Your task to perform on an android device: toggle airplane mode Image 0: 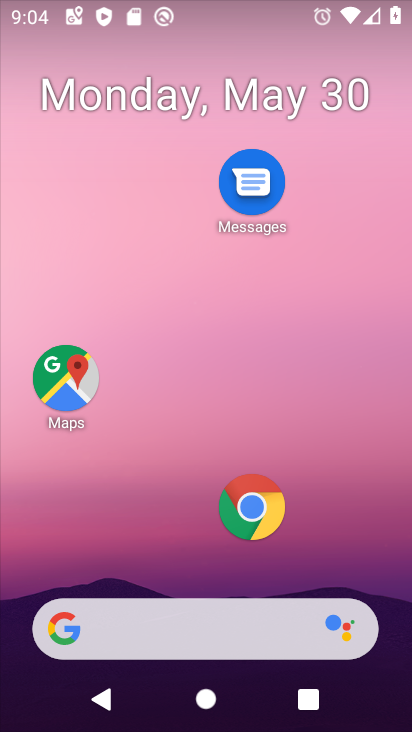
Step 0: drag from (252, 581) to (236, 66)
Your task to perform on an android device: toggle airplane mode Image 1: 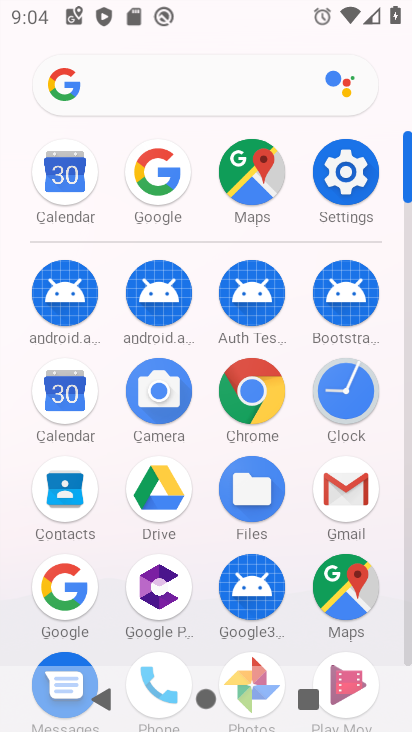
Step 1: click (341, 177)
Your task to perform on an android device: toggle airplane mode Image 2: 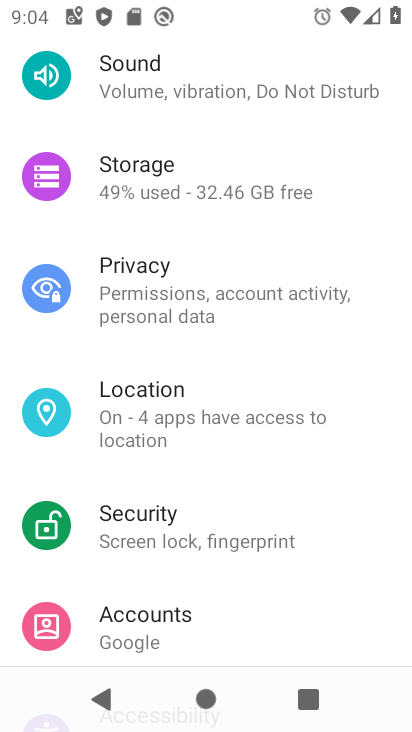
Step 2: drag from (236, 207) to (228, 551)
Your task to perform on an android device: toggle airplane mode Image 3: 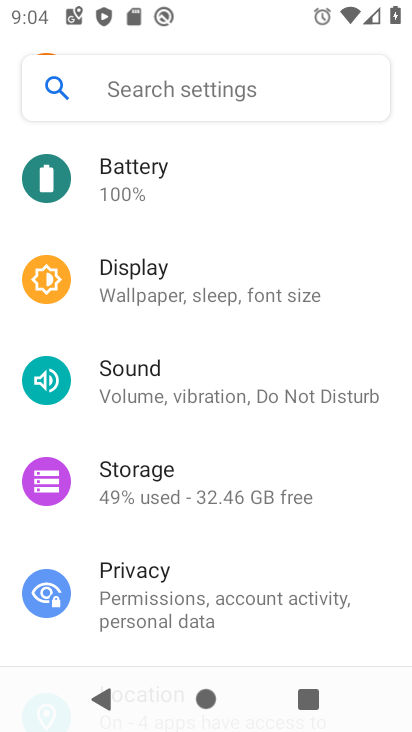
Step 3: drag from (240, 236) to (233, 542)
Your task to perform on an android device: toggle airplane mode Image 4: 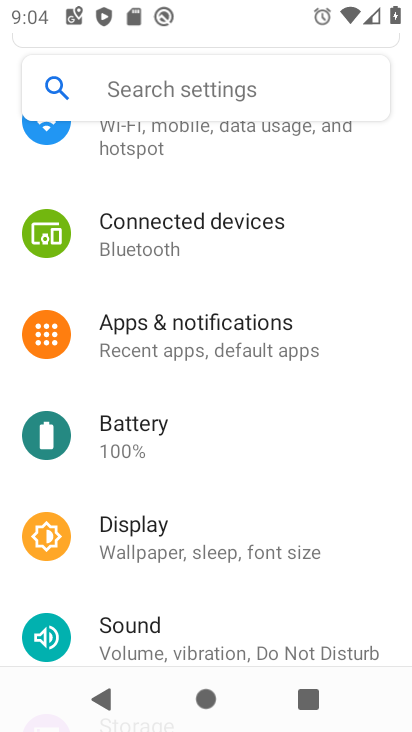
Step 4: drag from (196, 184) to (187, 597)
Your task to perform on an android device: toggle airplane mode Image 5: 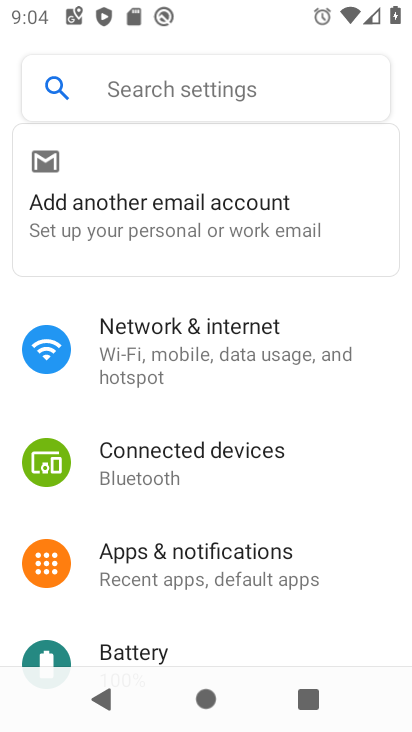
Step 5: click (190, 334)
Your task to perform on an android device: toggle airplane mode Image 6: 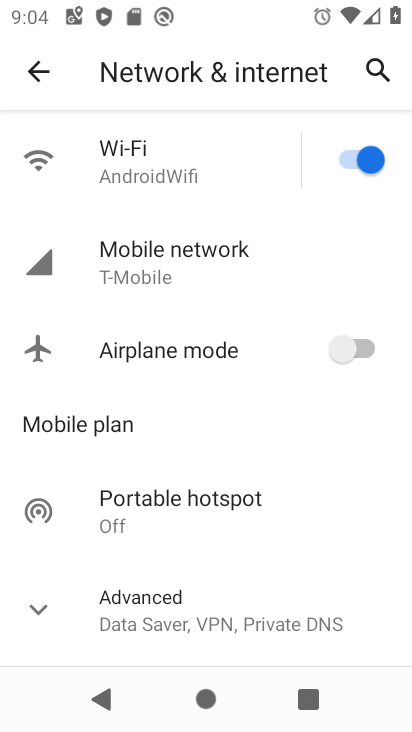
Step 6: click (372, 354)
Your task to perform on an android device: toggle airplane mode Image 7: 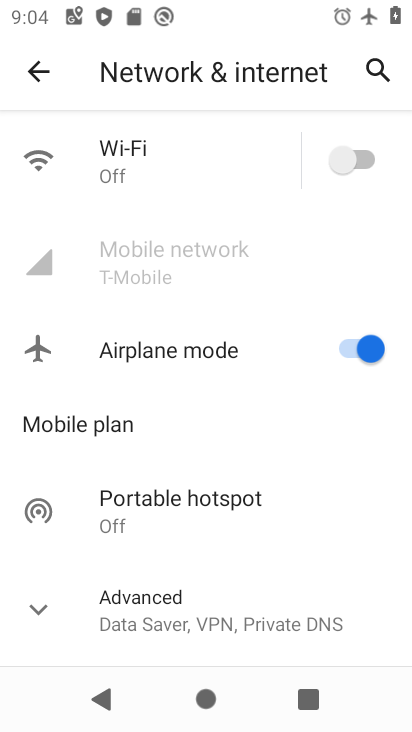
Step 7: task complete